Your task to perform on an android device: What is the recent news? Image 0: 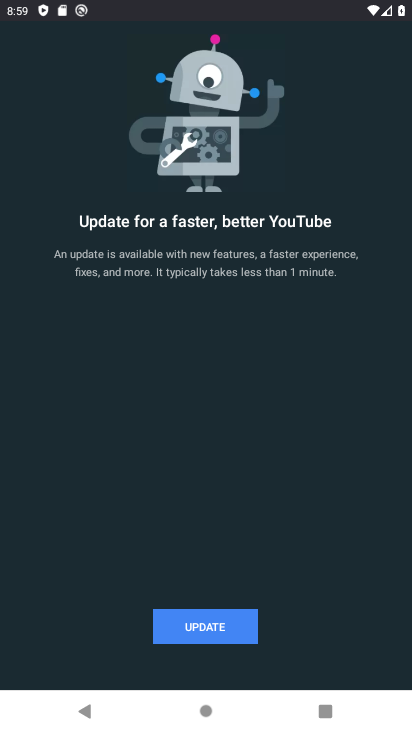
Step 0: press home button
Your task to perform on an android device: What is the recent news? Image 1: 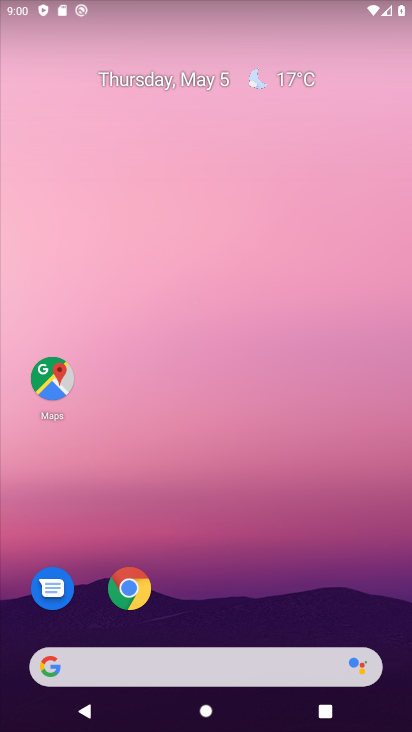
Step 1: drag from (228, 580) to (278, 271)
Your task to perform on an android device: What is the recent news? Image 2: 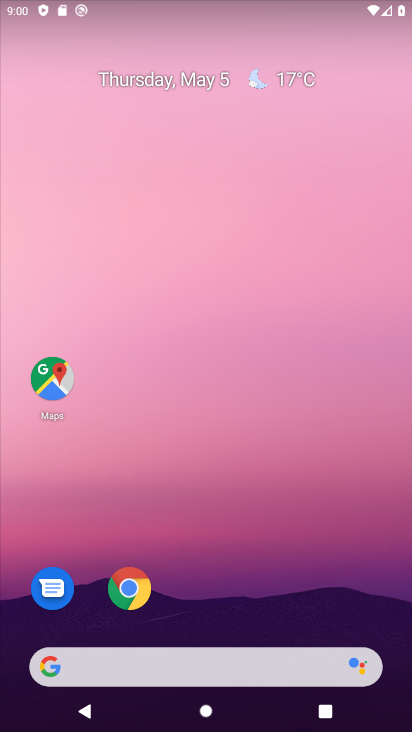
Step 2: drag from (242, 514) to (256, 234)
Your task to perform on an android device: What is the recent news? Image 3: 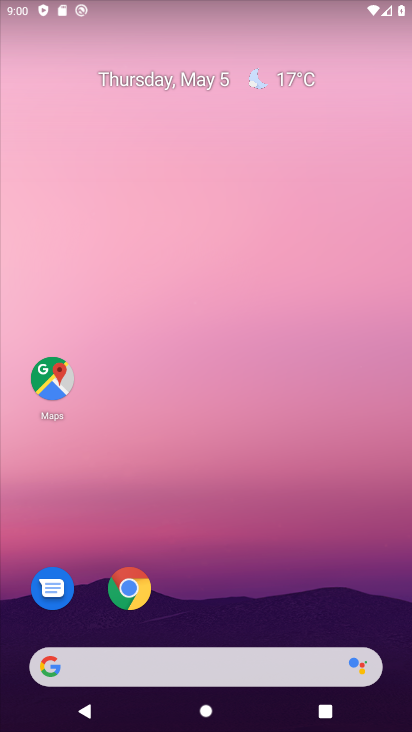
Step 3: drag from (228, 364) to (244, 198)
Your task to perform on an android device: What is the recent news? Image 4: 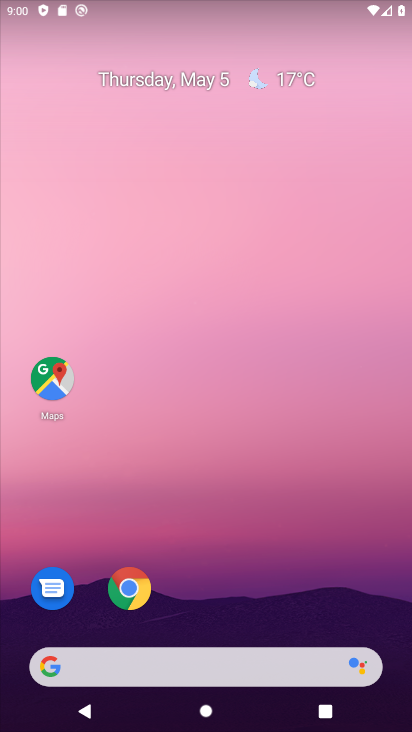
Step 4: drag from (225, 588) to (240, 207)
Your task to perform on an android device: What is the recent news? Image 5: 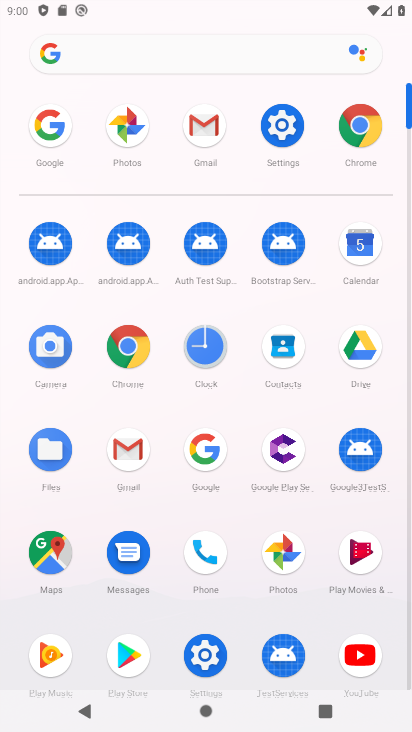
Step 5: click (123, 331)
Your task to perform on an android device: What is the recent news? Image 6: 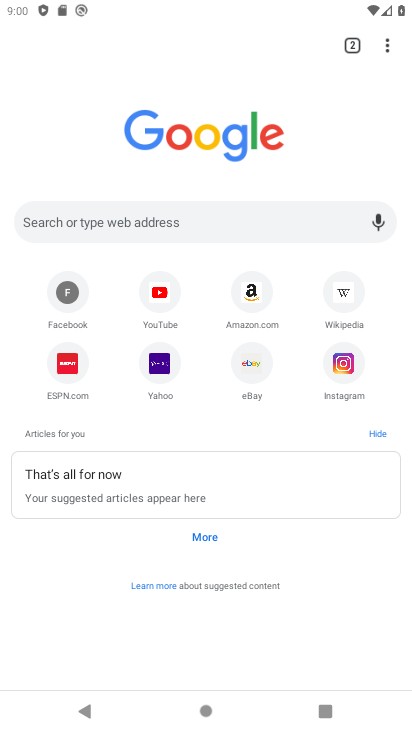
Step 6: click (230, 214)
Your task to perform on an android device: What is the recent news? Image 7: 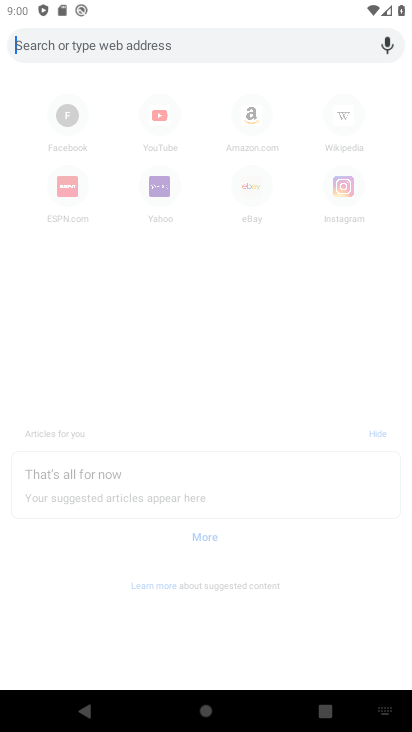
Step 7: type " recent news"
Your task to perform on an android device: What is the recent news? Image 8: 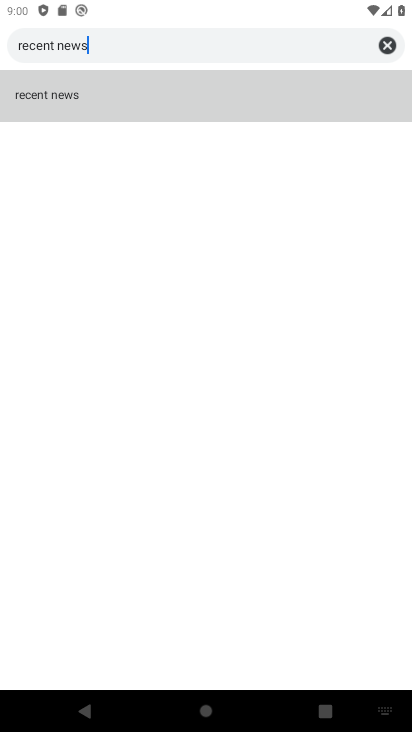
Step 8: click (125, 109)
Your task to perform on an android device: What is the recent news? Image 9: 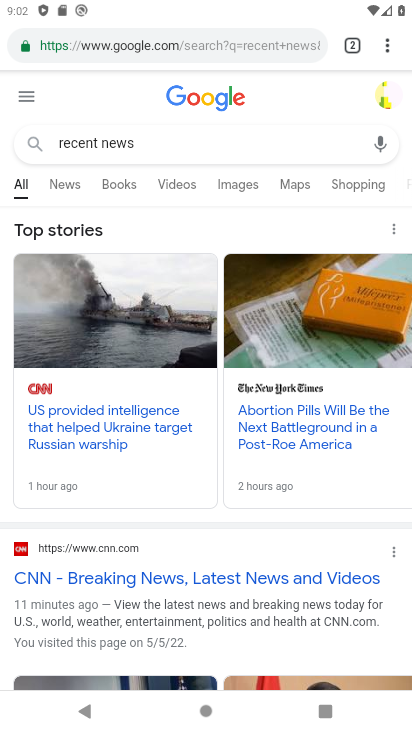
Step 9: task complete